Your task to perform on an android device: Is it going to rain this weekend? Image 0: 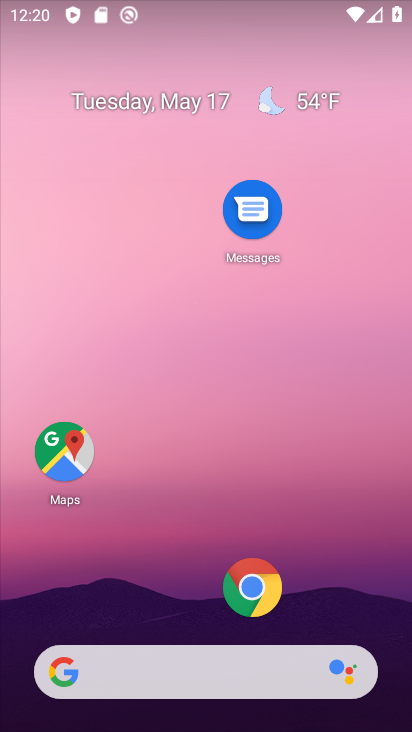
Step 0: click (325, 111)
Your task to perform on an android device: Is it going to rain this weekend? Image 1: 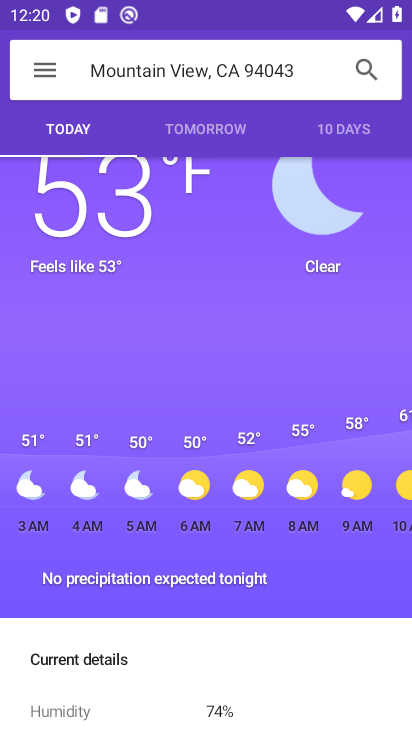
Step 1: click (341, 123)
Your task to perform on an android device: Is it going to rain this weekend? Image 2: 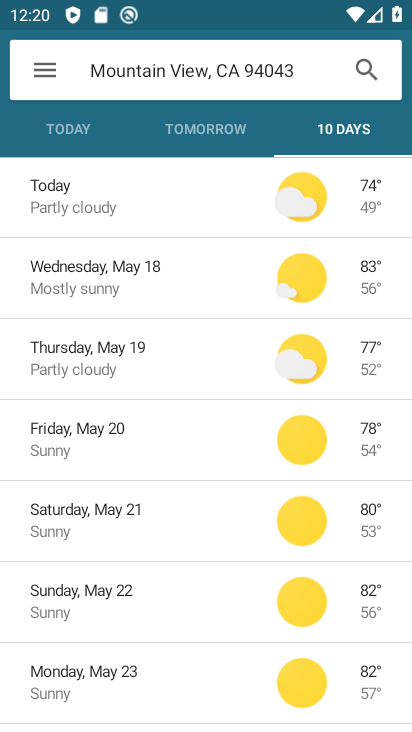
Step 2: task complete